Your task to perform on an android device: delete the emails in spam in the gmail app Image 0: 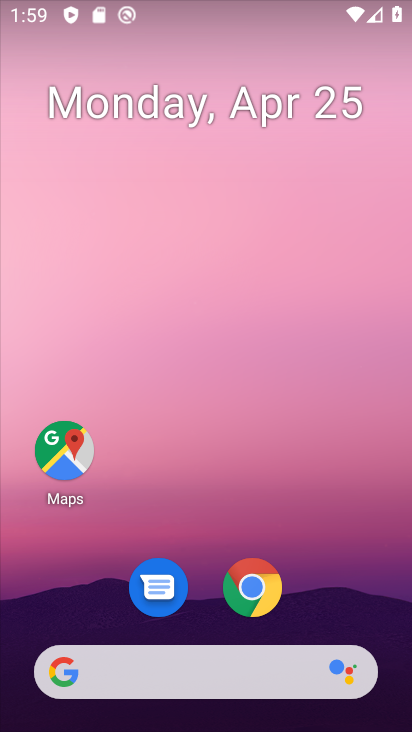
Step 0: drag from (320, 548) to (345, 103)
Your task to perform on an android device: delete the emails in spam in the gmail app Image 1: 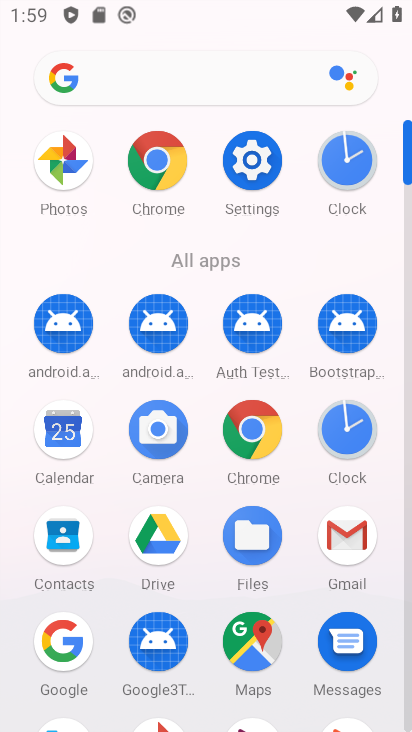
Step 1: click (330, 550)
Your task to perform on an android device: delete the emails in spam in the gmail app Image 2: 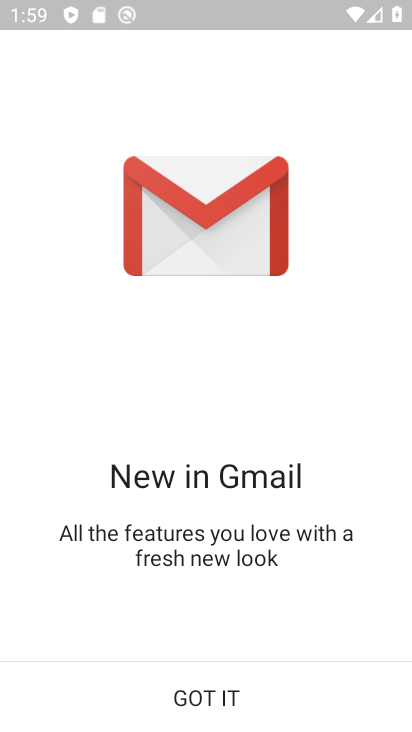
Step 2: click (221, 700)
Your task to perform on an android device: delete the emails in spam in the gmail app Image 3: 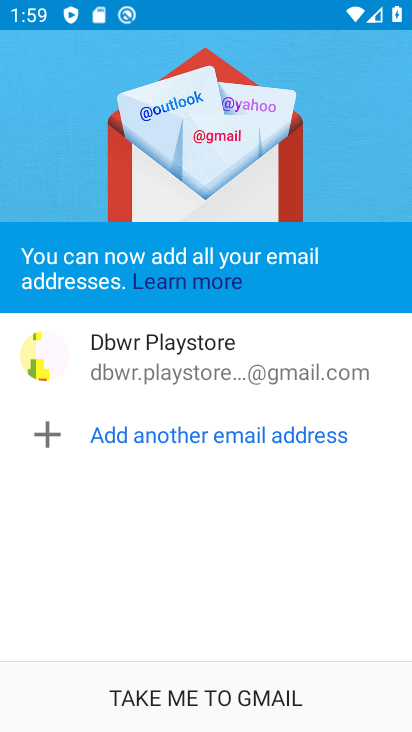
Step 3: click (230, 689)
Your task to perform on an android device: delete the emails in spam in the gmail app Image 4: 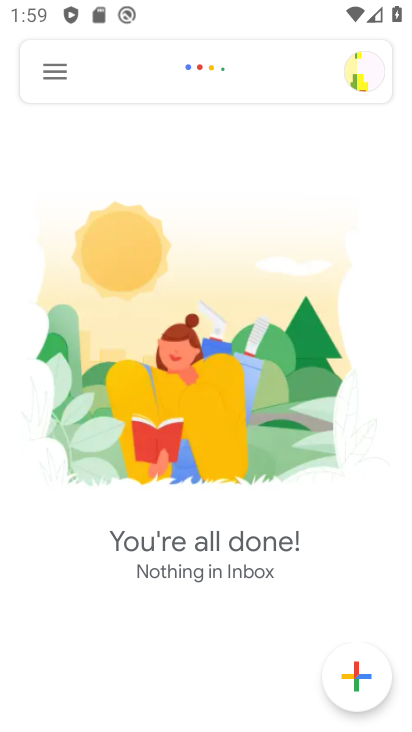
Step 4: click (51, 60)
Your task to perform on an android device: delete the emails in spam in the gmail app Image 5: 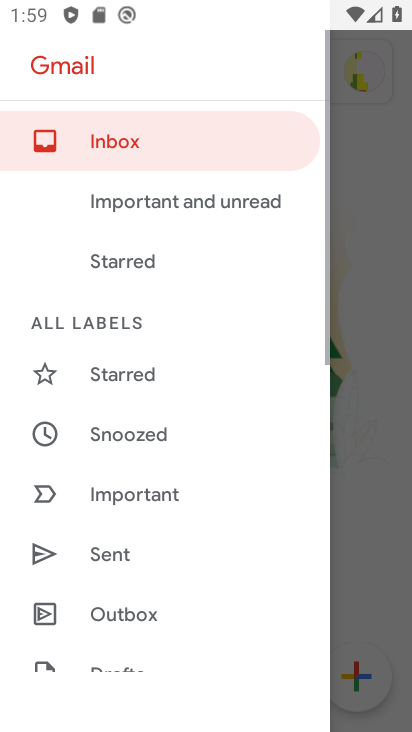
Step 5: drag from (164, 551) to (258, 226)
Your task to perform on an android device: delete the emails in spam in the gmail app Image 6: 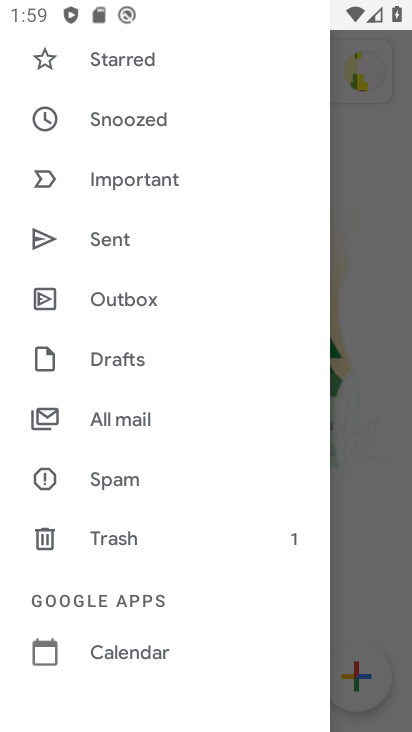
Step 6: drag from (174, 602) to (224, 255)
Your task to perform on an android device: delete the emails in spam in the gmail app Image 7: 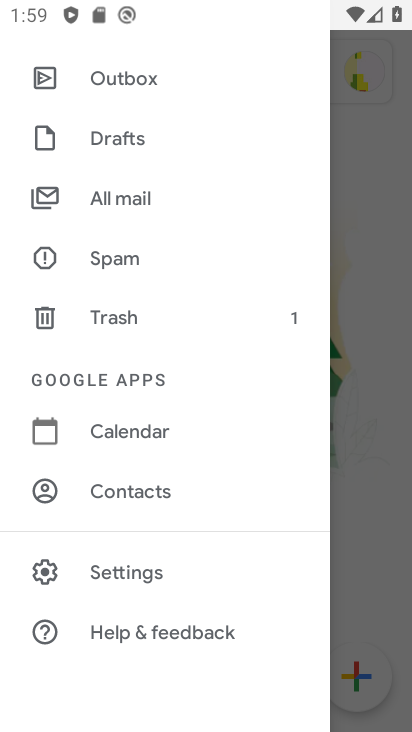
Step 7: drag from (125, 335) to (140, 625)
Your task to perform on an android device: delete the emails in spam in the gmail app Image 8: 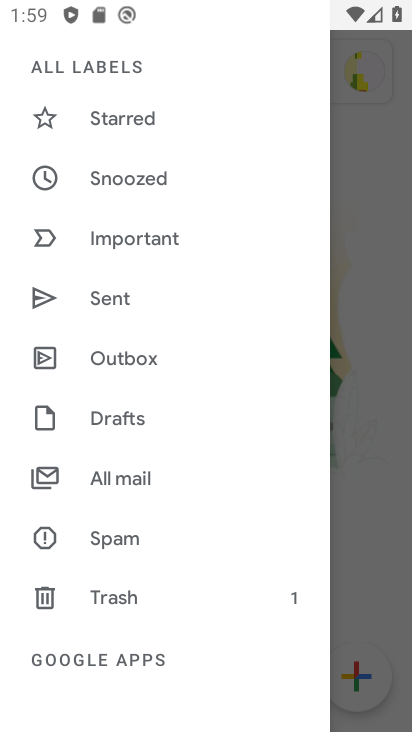
Step 8: click (114, 524)
Your task to perform on an android device: delete the emails in spam in the gmail app Image 9: 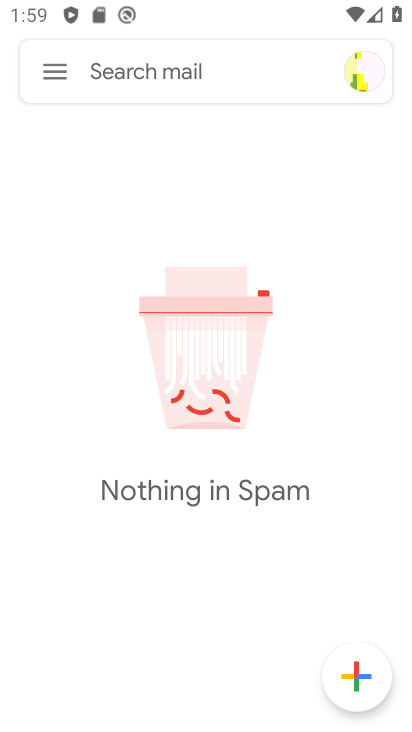
Step 9: task complete